Your task to perform on an android device: Go to Amazon Image 0: 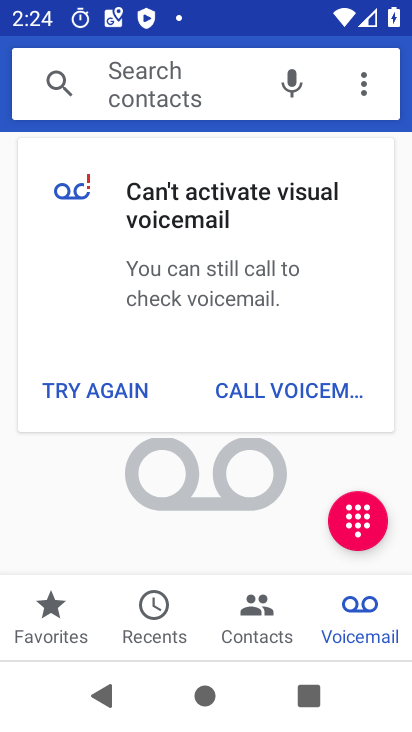
Step 0: press home button
Your task to perform on an android device: Go to Amazon Image 1: 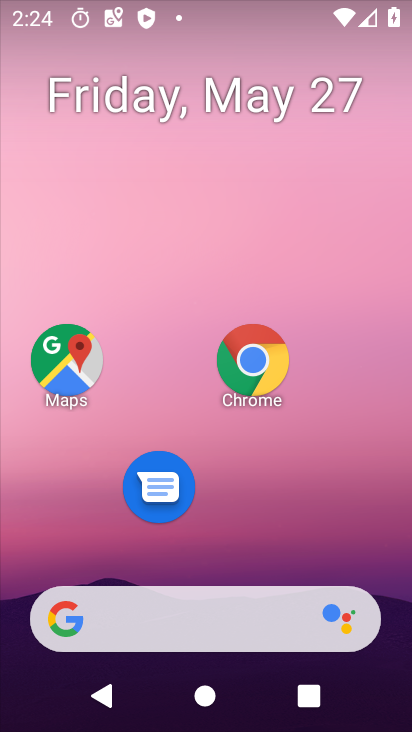
Step 1: drag from (251, 502) to (312, 70)
Your task to perform on an android device: Go to Amazon Image 2: 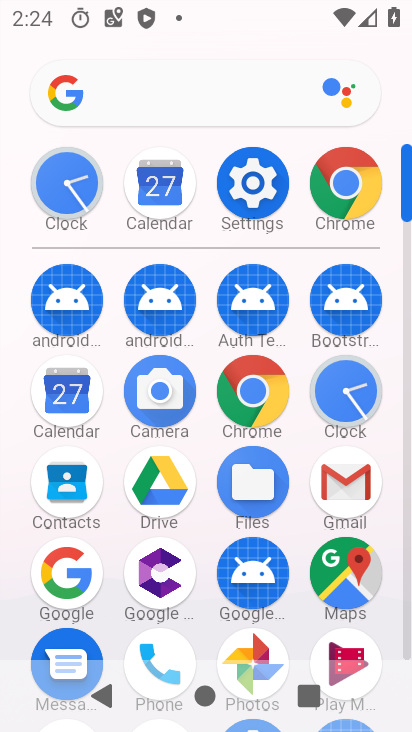
Step 2: click (253, 394)
Your task to perform on an android device: Go to Amazon Image 3: 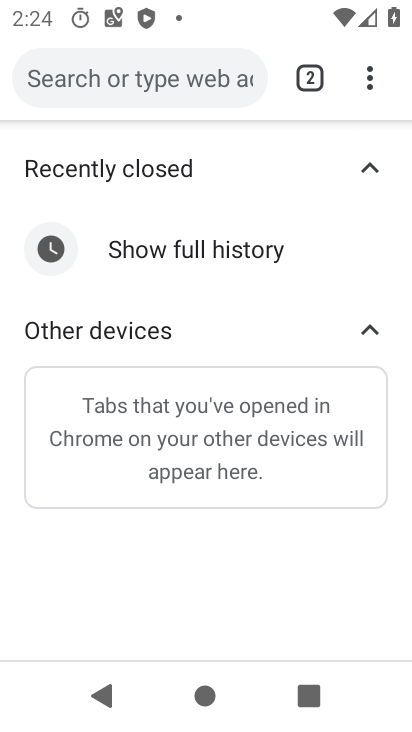
Step 3: task complete